Your task to perform on an android device: toggle notifications settings in the gmail app Image 0: 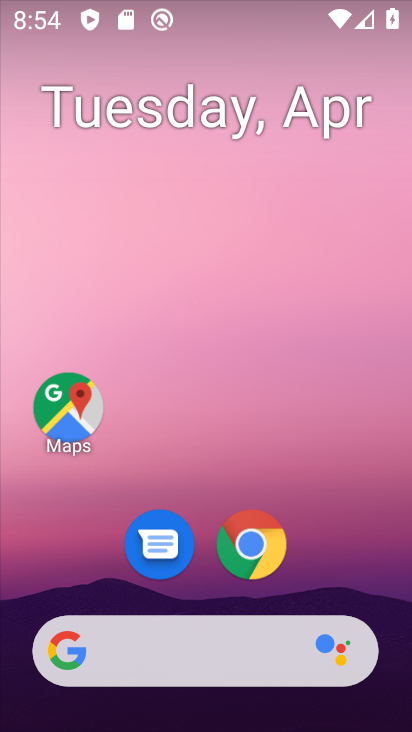
Step 0: drag from (327, 574) to (325, 63)
Your task to perform on an android device: toggle notifications settings in the gmail app Image 1: 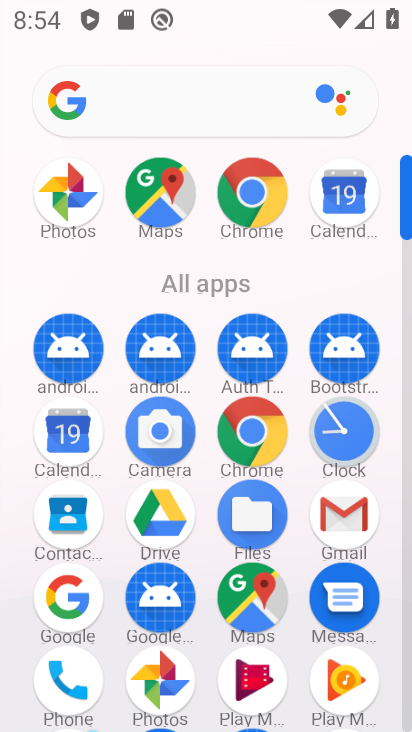
Step 1: click (355, 519)
Your task to perform on an android device: toggle notifications settings in the gmail app Image 2: 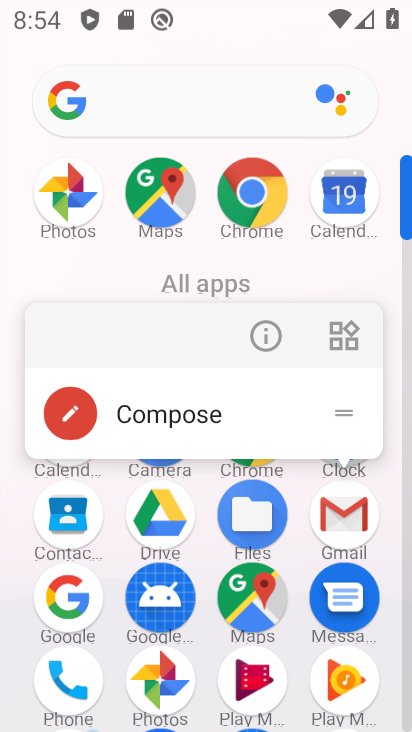
Step 2: click (346, 533)
Your task to perform on an android device: toggle notifications settings in the gmail app Image 3: 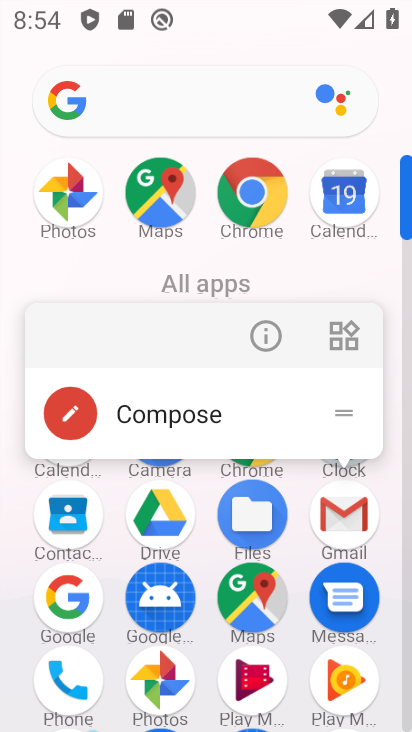
Step 3: click (347, 512)
Your task to perform on an android device: toggle notifications settings in the gmail app Image 4: 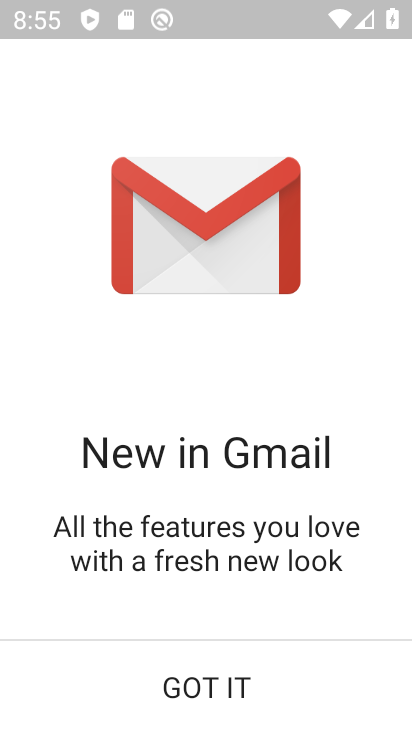
Step 4: click (187, 705)
Your task to perform on an android device: toggle notifications settings in the gmail app Image 5: 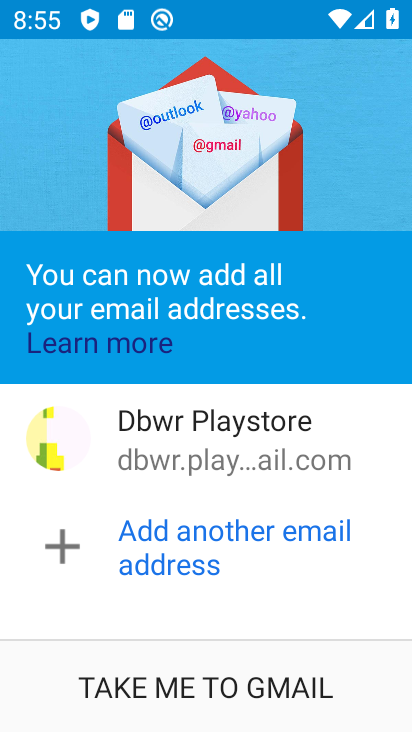
Step 5: click (184, 695)
Your task to perform on an android device: toggle notifications settings in the gmail app Image 6: 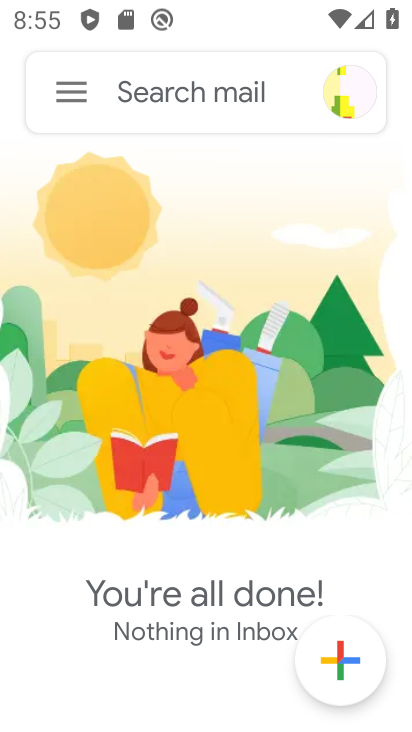
Step 6: click (78, 94)
Your task to perform on an android device: toggle notifications settings in the gmail app Image 7: 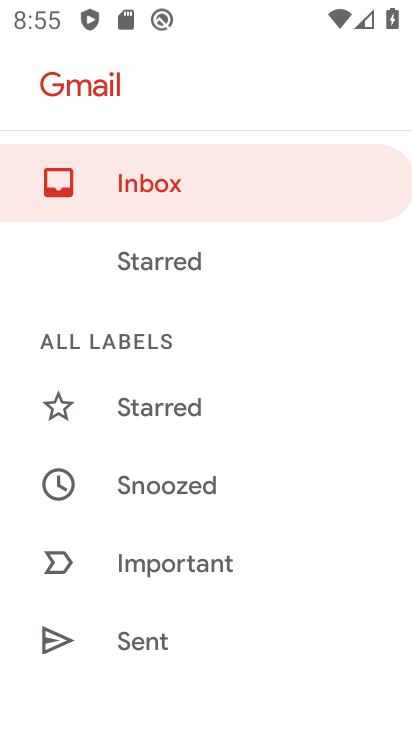
Step 7: drag from (152, 650) to (161, 268)
Your task to perform on an android device: toggle notifications settings in the gmail app Image 8: 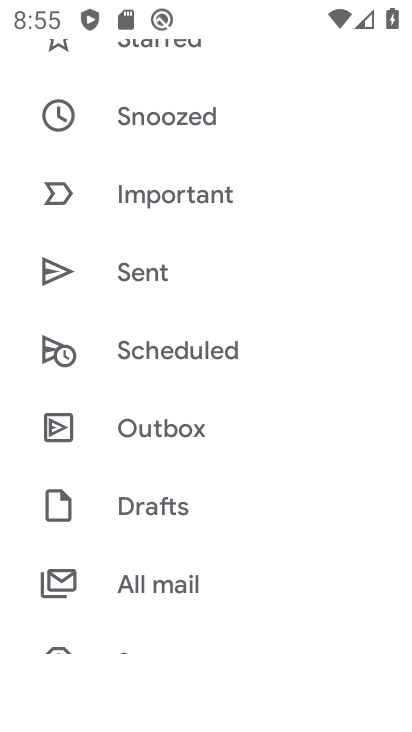
Step 8: drag from (155, 600) to (154, 198)
Your task to perform on an android device: toggle notifications settings in the gmail app Image 9: 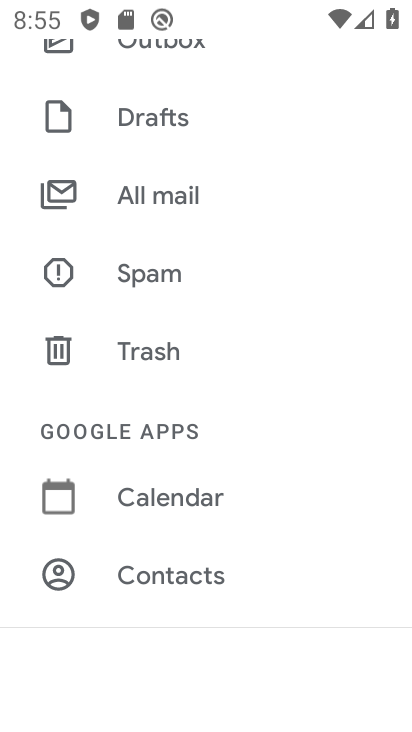
Step 9: drag from (231, 584) to (243, 234)
Your task to perform on an android device: toggle notifications settings in the gmail app Image 10: 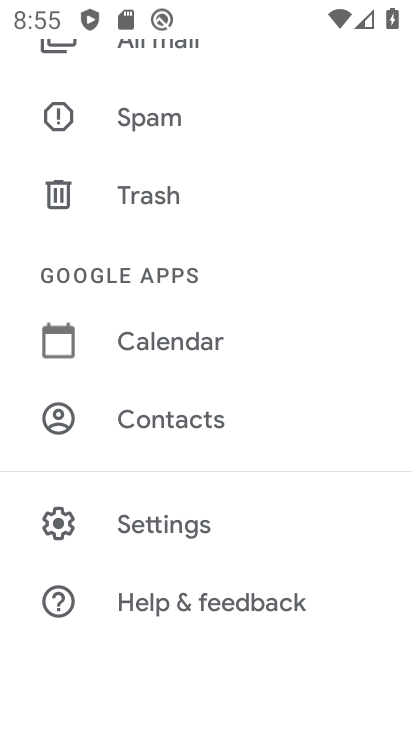
Step 10: click (174, 529)
Your task to perform on an android device: toggle notifications settings in the gmail app Image 11: 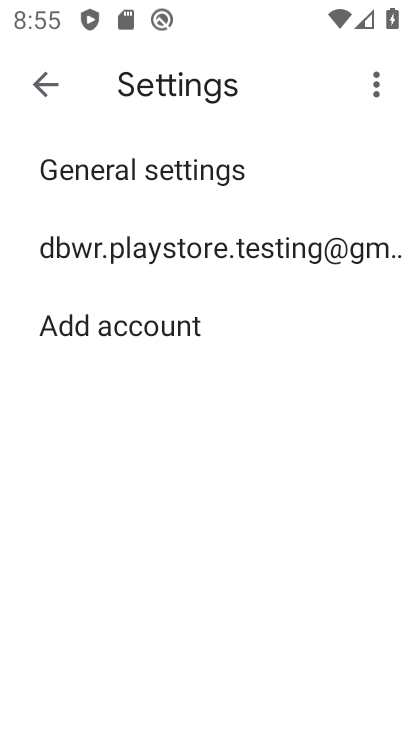
Step 11: click (226, 256)
Your task to perform on an android device: toggle notifications settings in the gmail app Image 12: 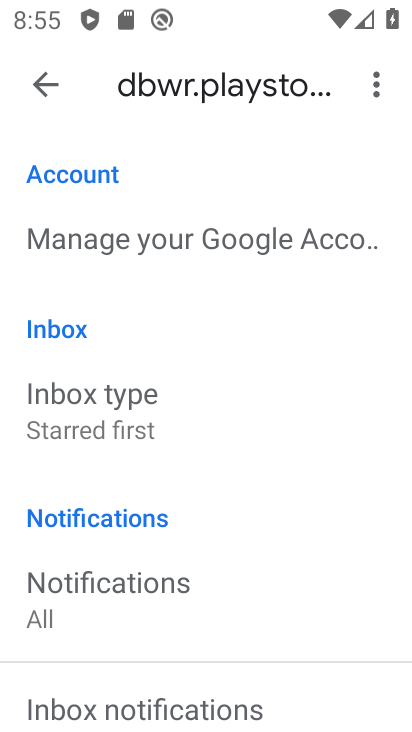
Step 12: click (161, 601)
Your task to perform on an android device: toggle notifications settings in the gmail app Image 13: 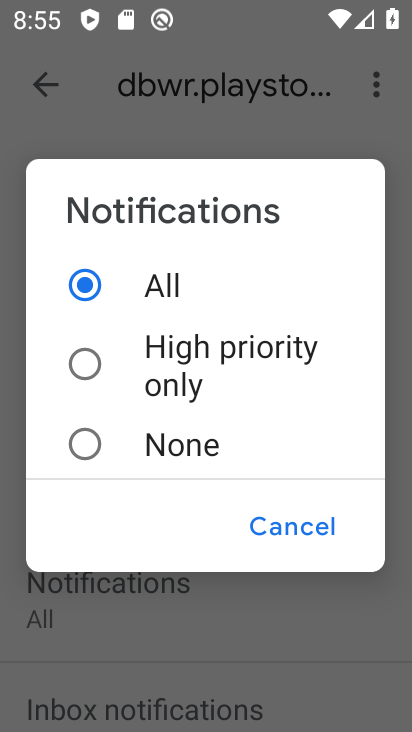
Step 13: click (164, 368)
Your task to perform on an android device: toggle notifications settings in the gmail app Image 14: 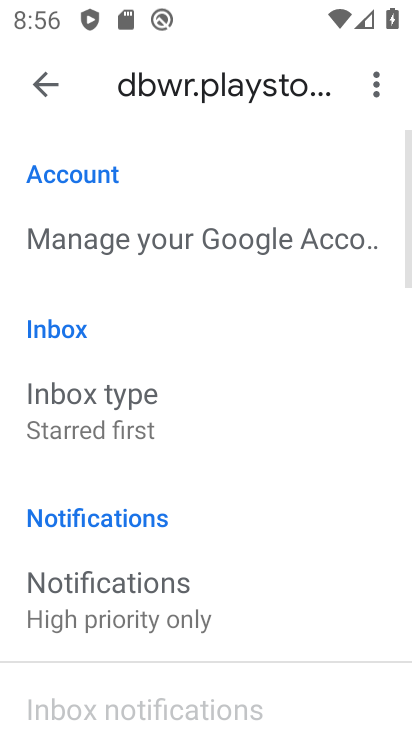
Step 14: task complete